Your task to perform on an android device: What's the weather today? Image 0: 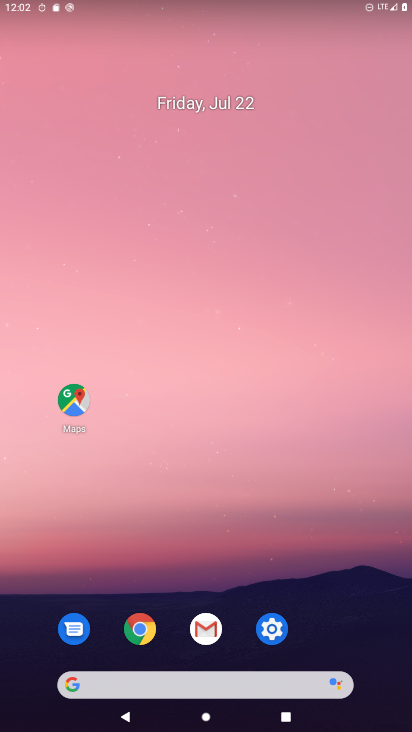
Step 0: click (204, 677)
Your task to perform on an android device: What's the weather today? Image 1: 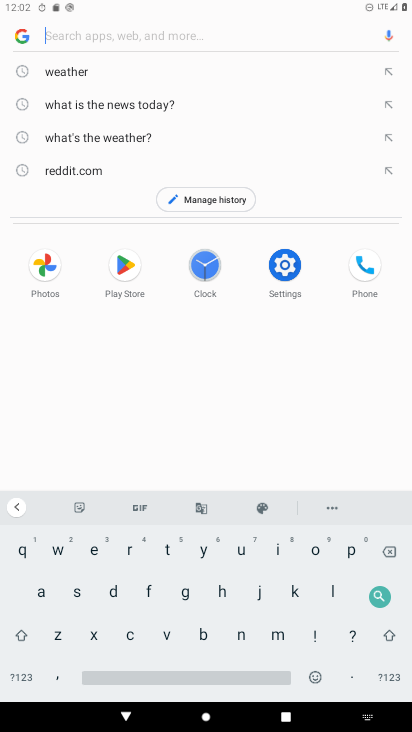
Step 1: click (128, 145)
Your task to perform on an android device: What's the weather today? Image 2: 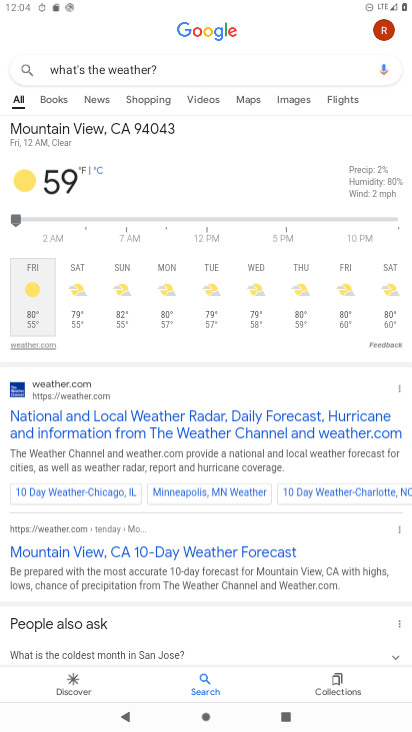
Step 2: task complete